Your task to perform on an android device: toggle data saver in the chrome app Image 0: 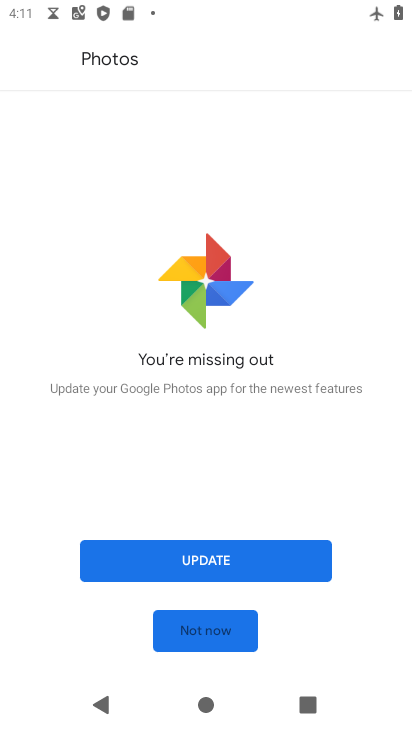
Step 0: press home button
Your task to perform on an android device: toggle data saver in the chrome app Image 1: 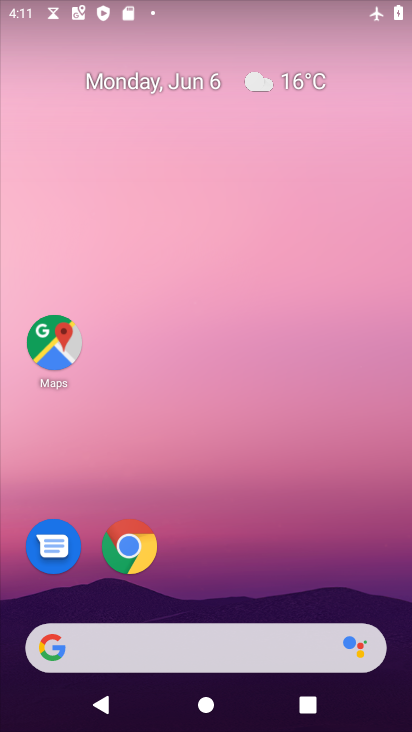
Step 1: drag from (268, 592) to (352, 42)
Your task to perform on an android device: toggle data saver in the chrome app Image 2: 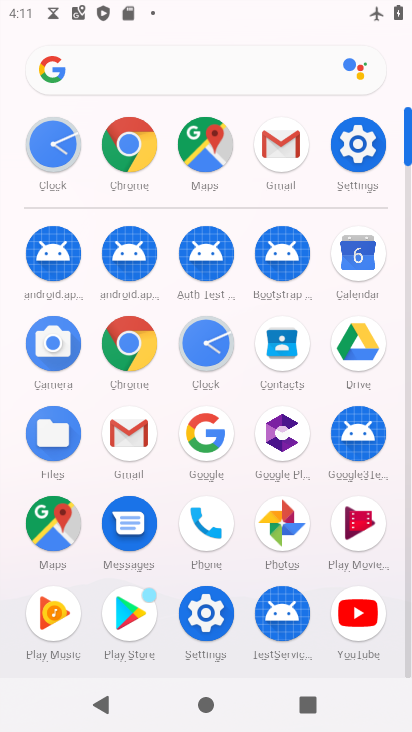
Step 2: click (120, 161)
Your task to perform on an android device: toggle data saver in the chrome app Image 3: 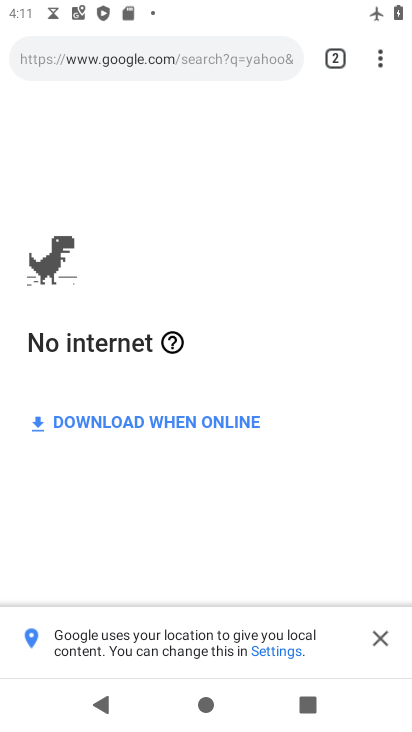
Step 3: drag from (375, 57) to (173, 573)
Your task to perform on an android device: toggle data saver in the chrome app Image 4: 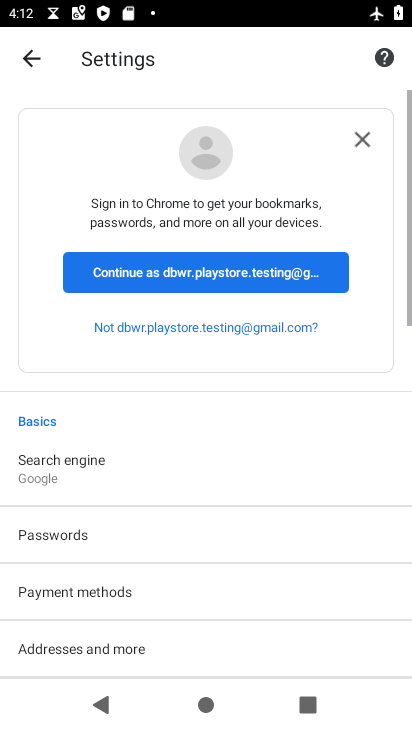
Step 4: drag from (183, 566) to (283, 43)
Your task to perform on an android device: toggle data saver in the chrome app Image 5: 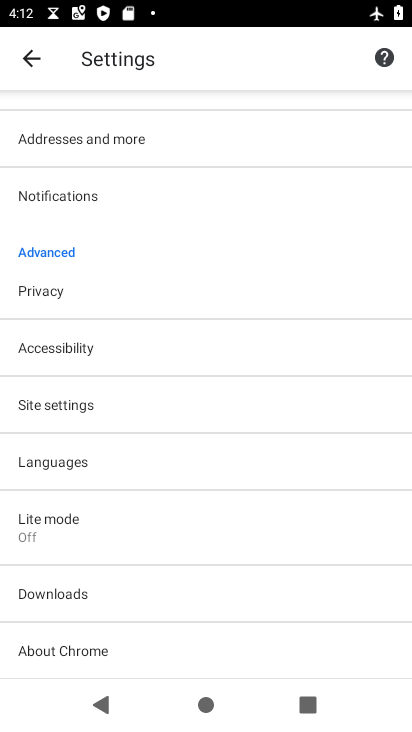
Step 5: click (123, 533)
Your task to perform on an android device: toggle data saver in the chrome app Image 6: 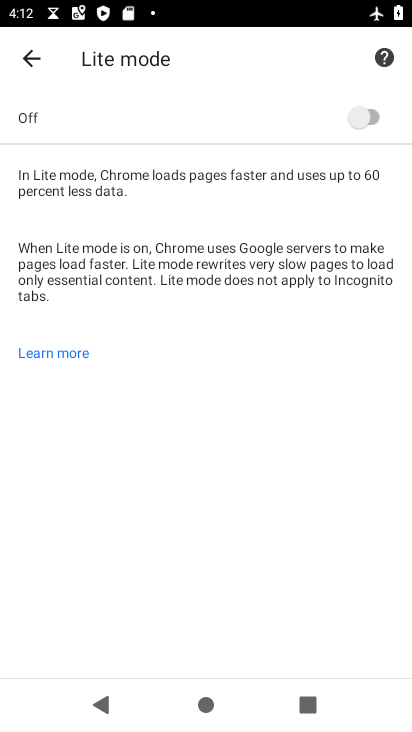
Step 6: click (344, 127)
Your task to perform on an android device: toggle data saver in the chrome app Image 7: 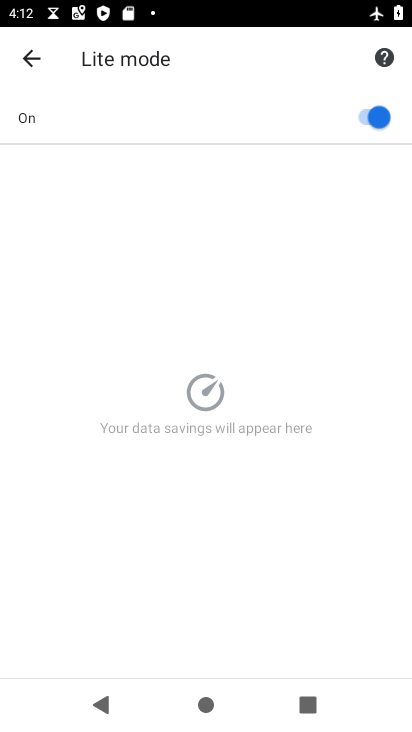
Step 7: task complete